Your task to perform on an android device: Open settings Image 0: 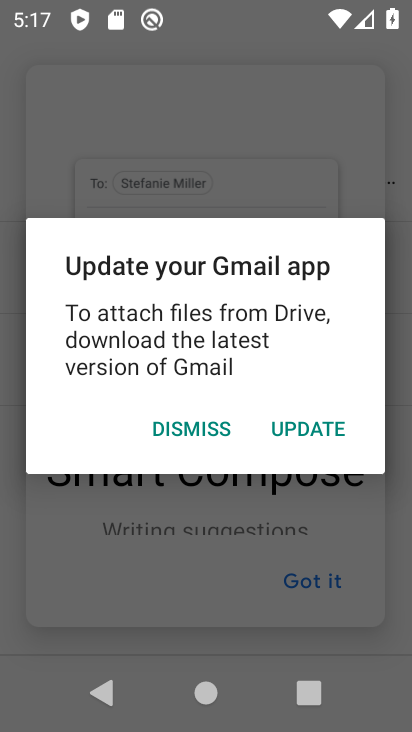
Step 0: press home button
Your task to perform on an android device: Open settings Image 1: 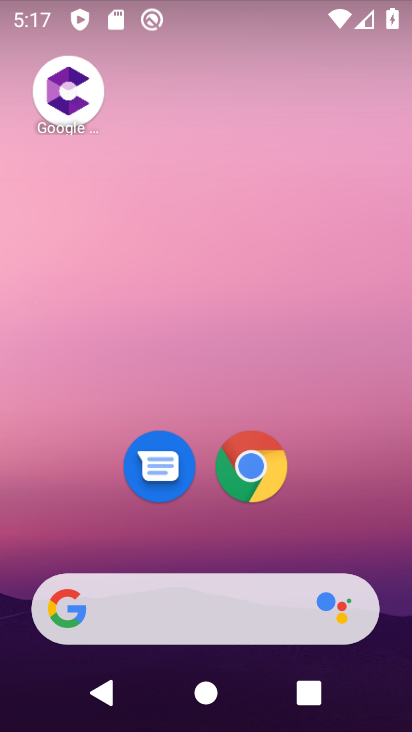
Step 1: drag from (333, 505) to (316, 171)
Your task to perform on an android device: Open settings Image 2: 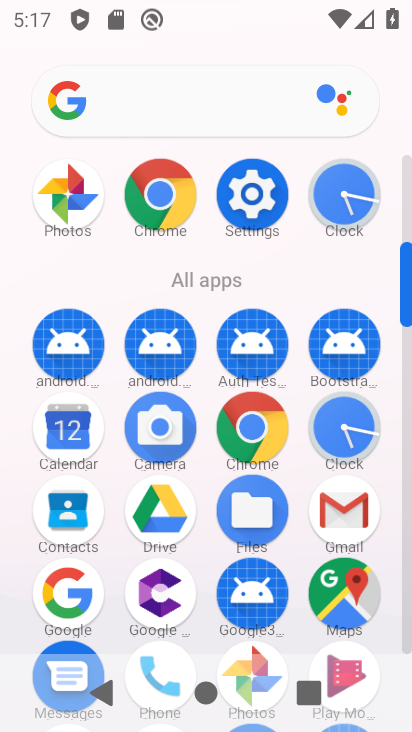
Step 2: click (239, 216)
Your task to perform on an android device: Open settings Image 3: 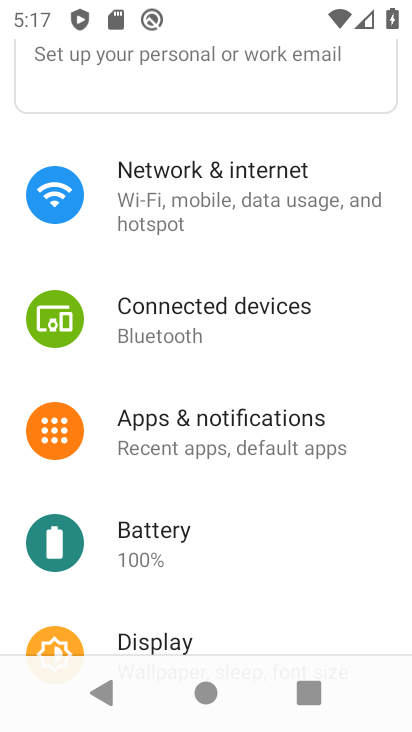
Step 3: task complete